Your task to perform on an android device: clear history in the chrome app Image 0: 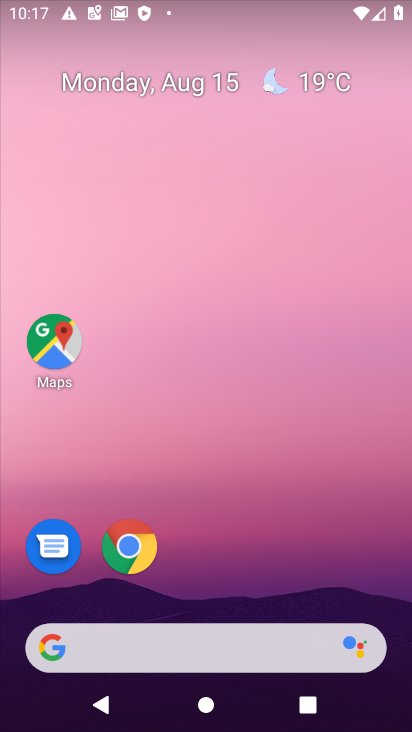
Step 0: click (122, 550)
Your task to perform on an android device: clear history in the chrome app Image 1: 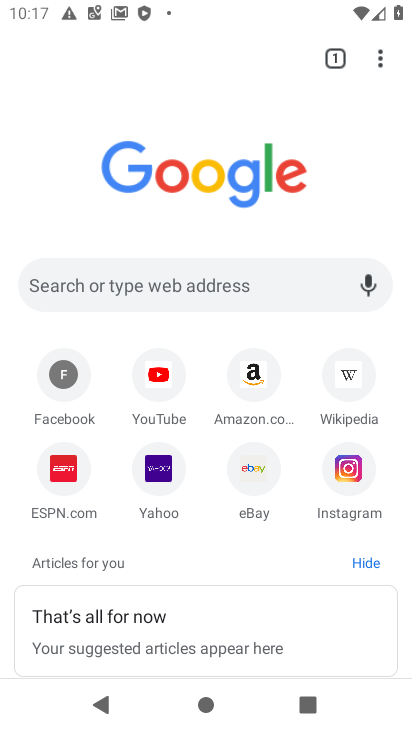
Step 1: click (377, 61)
Your task to perform on an android device: clear history in the chrome app Image 2: 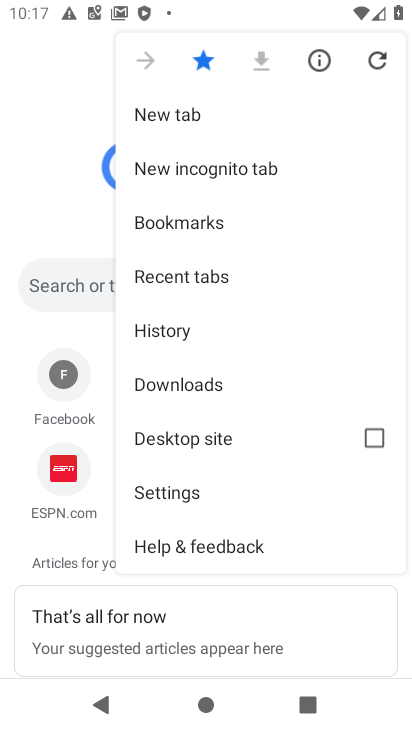
Step 2: click (157, 325)
Your task to perform on an android device: clear history in the chrome app Image 3: 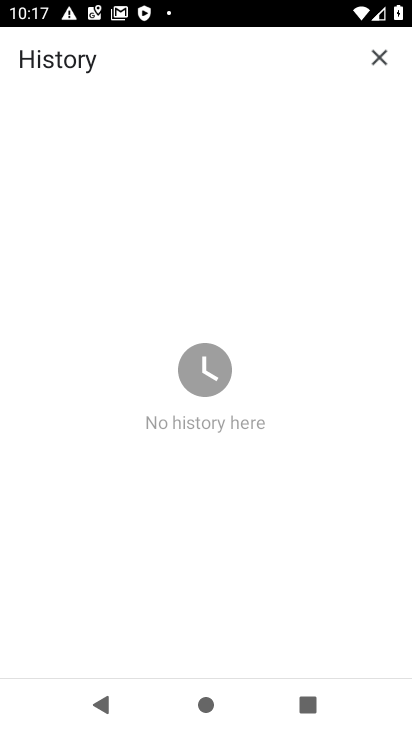
Step 3: task complete